Your task to perform on an android device: turn off improve location accuracy Image 0: 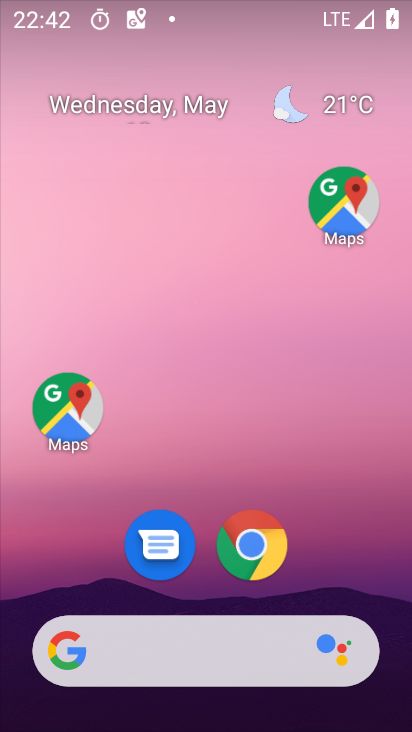
Step 0: drag from (324, 584) to (338, 12)
Your task to perform on an android device: turn off improve location accuracy Image 1: 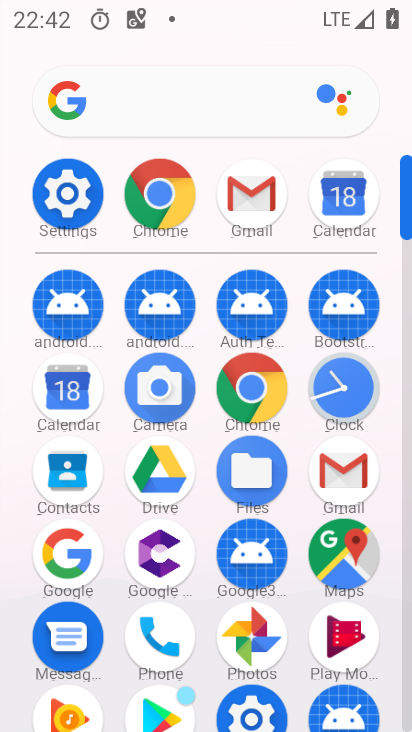
Step 1: click (69, 191)
Your task to perform on an android device: turn off improve location accuracy Image 2: 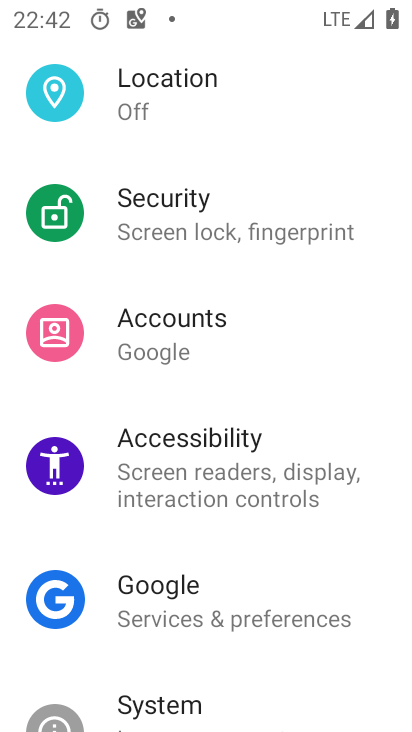
Step 2: click (159, 102)
Your task to perform on an android device: turn off improve location accuracy Image 3: 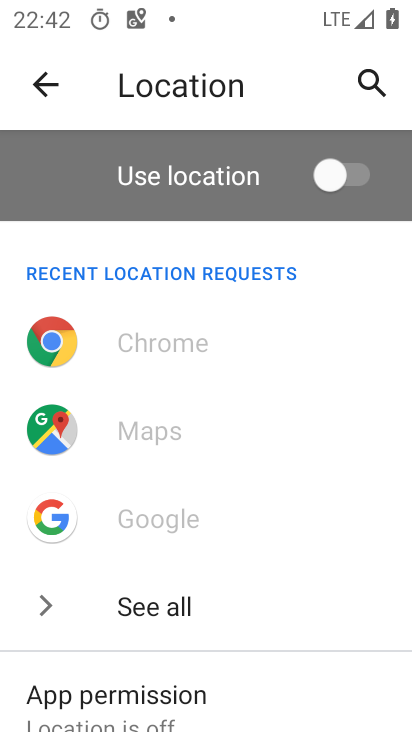
Step 3: drag from (214, 675) to (255, 392)
Your task to perform on an android device: turn off improve location accuracy Image 4: 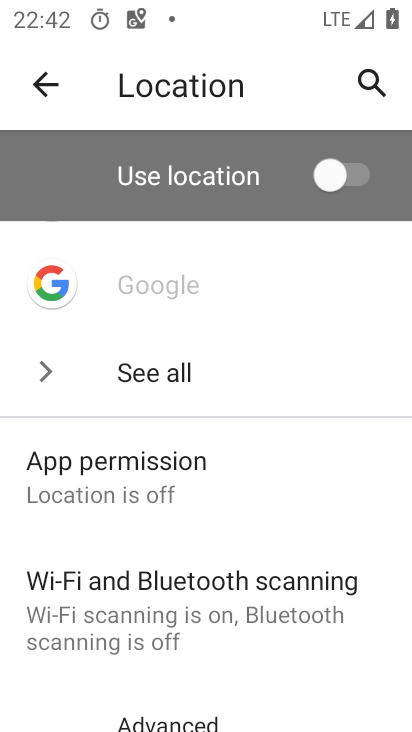
Step 4: drag from (169, 693) to (233, 489)
Your task to perform on an android device: turn off improve location accuracy Image 5: 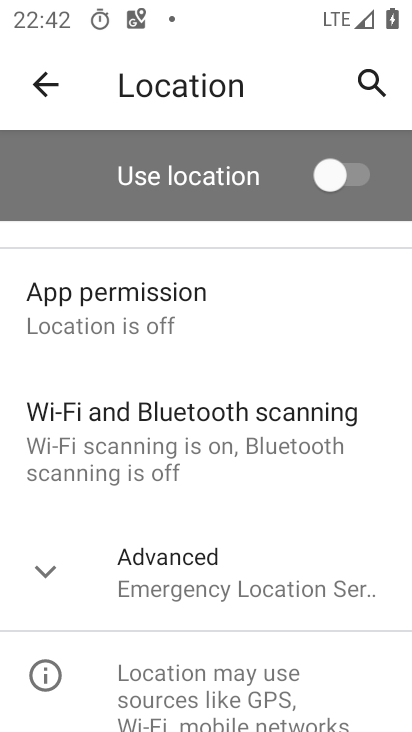
Step 5: click (157, 687)
Your task to perform on an android device: turn off improve location accuracy Image 6: 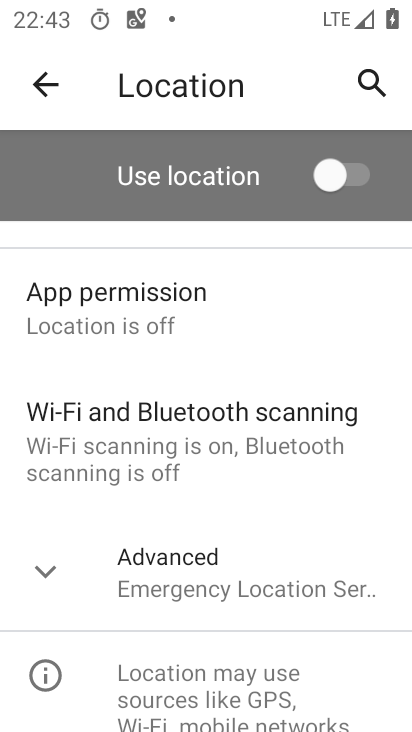
Step 6: click (221, 591)
Your task to perform on an android device: turn off improve location accuracy Image 7: 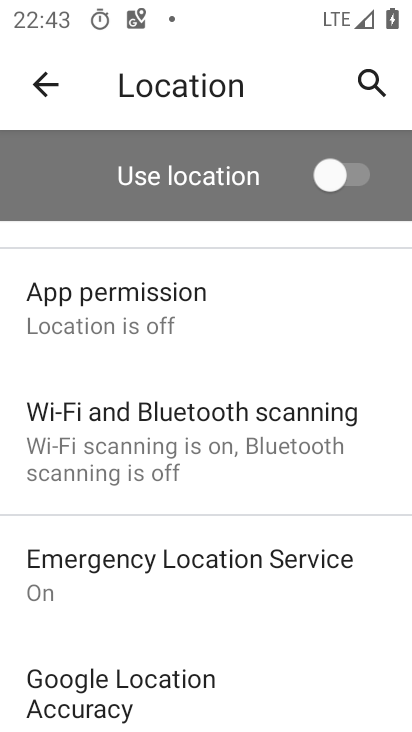
Step 7: drag from (207, 663) to (219, 369)
Your task to perform on an android device: turn off improve location accuracy Image 8: 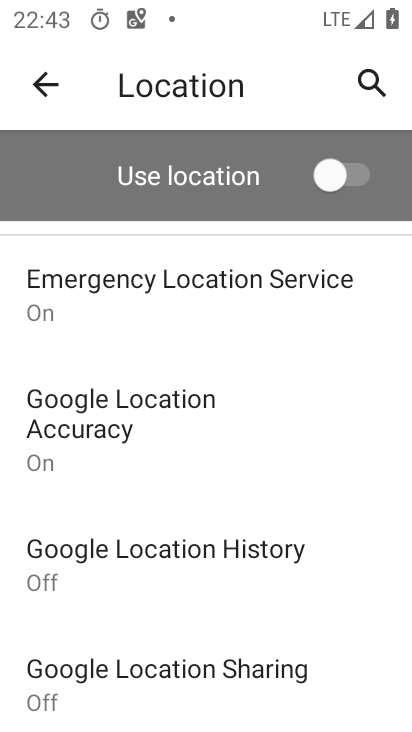
Step 8: click (110, 438)
Your task to perform on an android device: turn off improve location accuracy Image 9: 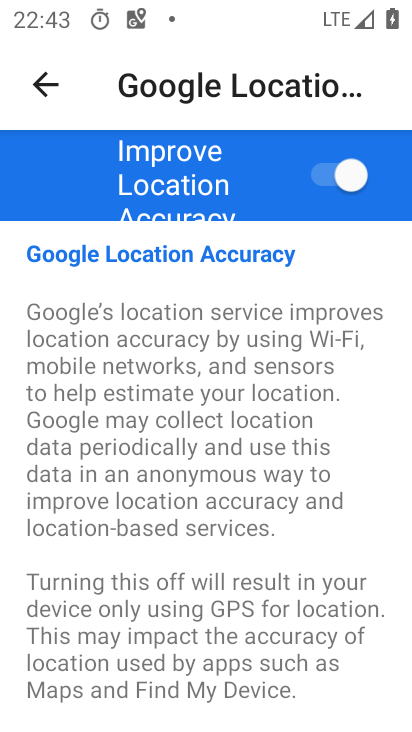
Step 9: click (322, 177)
Your task to perform on an android device: turn off improve location accuracy Image 10: 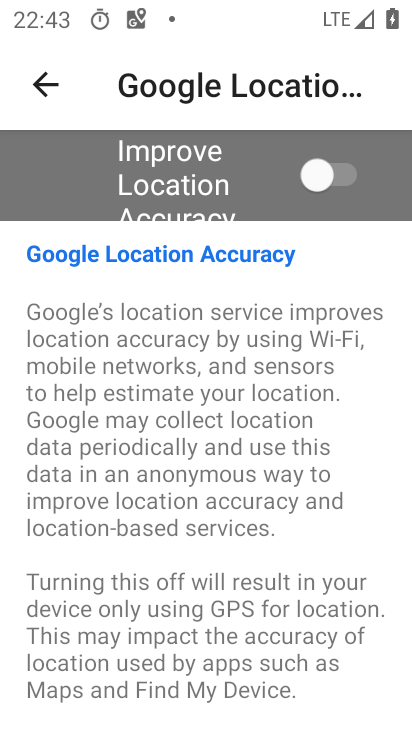
Step 10: task complete